Your task to perform on an android device: see tabs open on other devices in the chrome app Image 0: 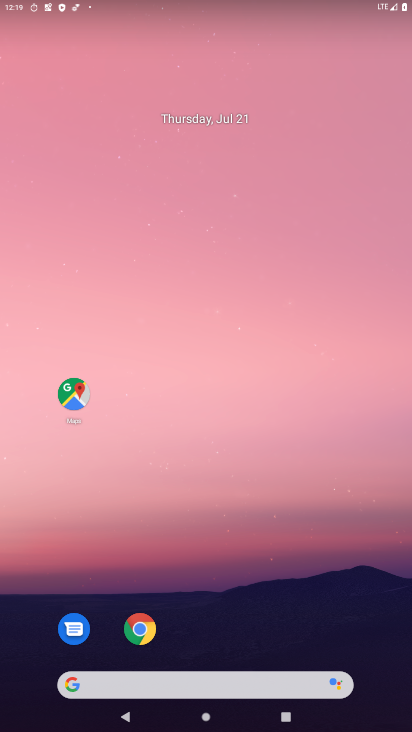
Step 0: drag from (170, 677) to (388, 517)
Your task to perform on an android device: see tabs open on other devices in the chrome app Image 1: 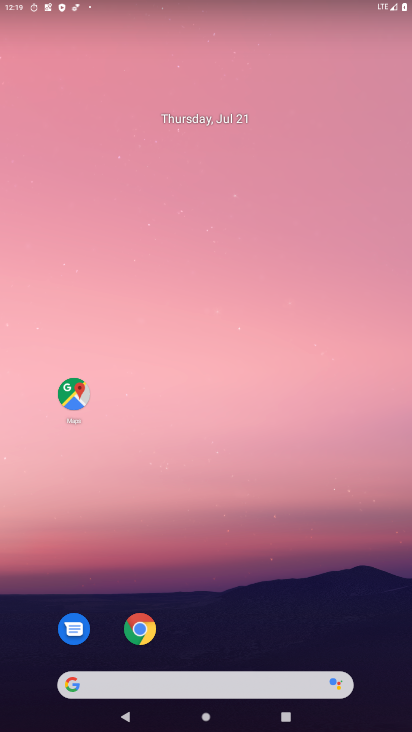
Step 1: drag from (238, 699) to (248, 86)
Your task to perform on an android device: see tabs open on other devices in the chrome app Image 2: 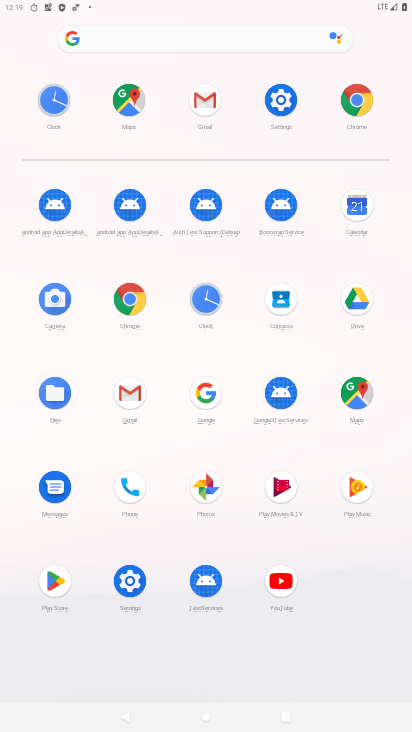
Step 2: click (136, 292)
Your task to perform on an android device: see tabs open on other devices in the chrome app Image 3: 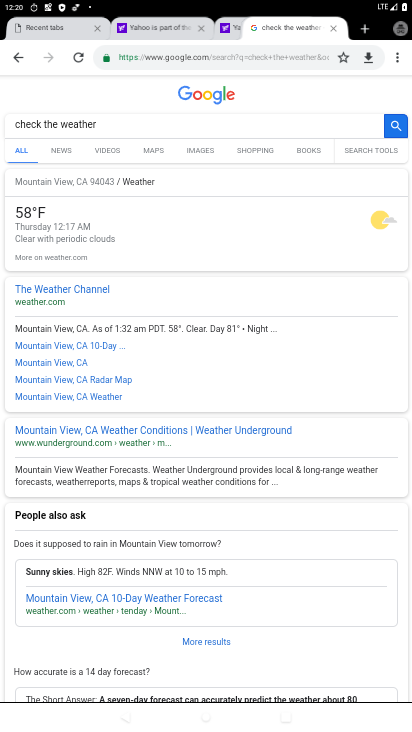
Step 3: task complete